Your task to perform on an android device: Open Google Maps Image 0: 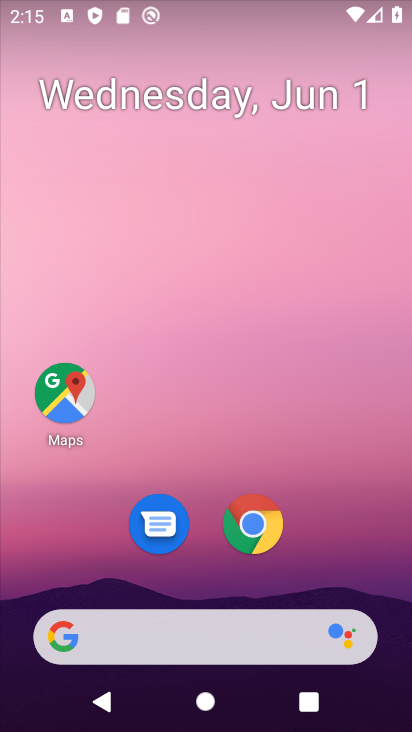
Step 0: click (64, 390)
Your task to perform on an android device: Open Google Maps Image 1: 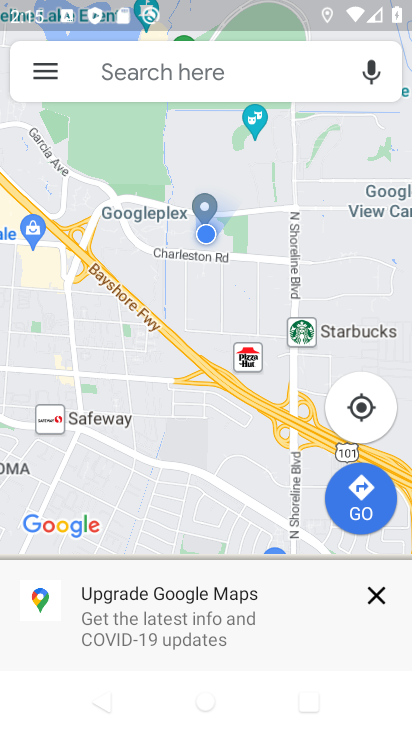
Step 1: task complete